Your task to perform on an android device: delete location history Image 0: 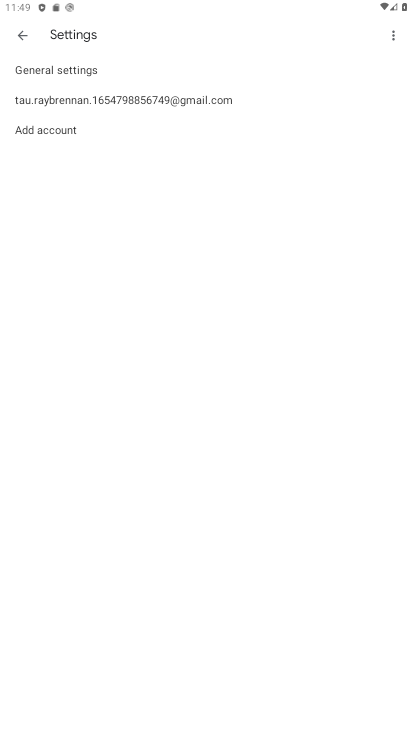
Step 0: press home button
Your task to perform on an android device: delete location history Image 1: 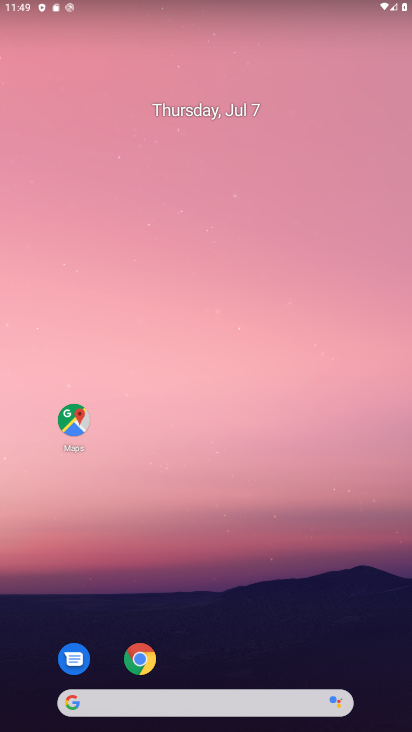
Step 1: drag from (228, 547) to (149, 145)
Your task to perform on an android device: delete location history Image 2: 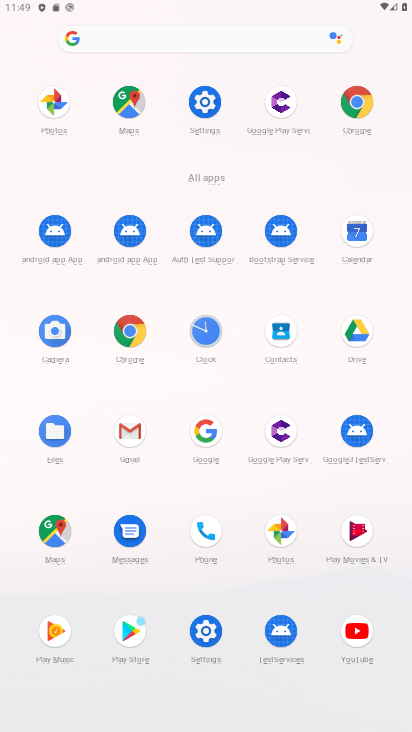
Step 2: click (121, 109)
Your task to perform on an android device: delete location history Image 3: 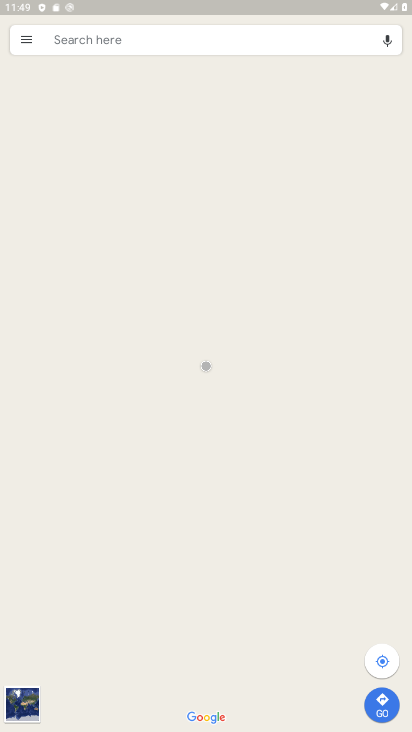
Step 3: click (24, 38)
Your task to perform on an android device: delete location history Image 4: 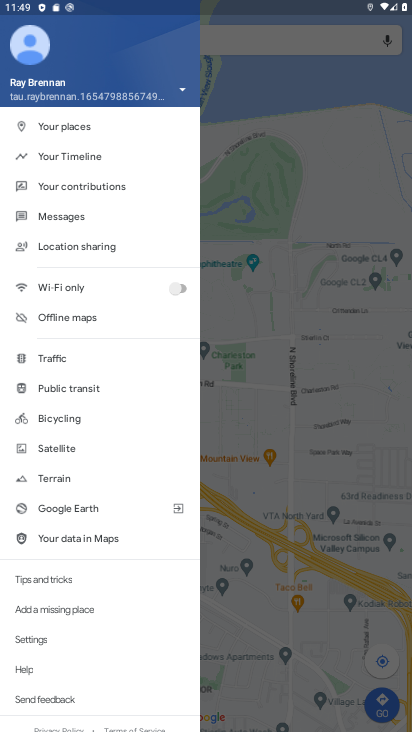
Step 4: click (68, 158)
Your task to perform on an android device: delete location history Image 5: 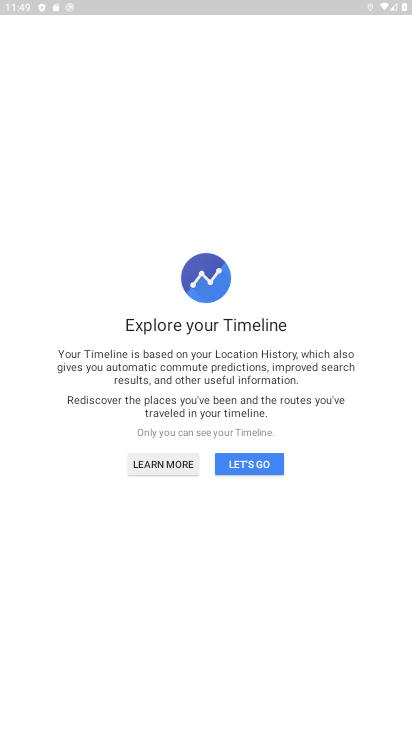
Step 5: click (254, 465)
Your task to perform on an android device: delete location history Image 6: 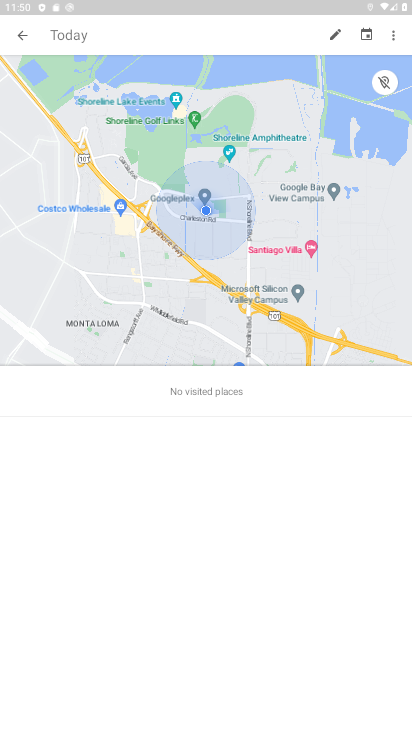
Step 6: click (394, 34)
Your task to perform on an android device: delete location history Image 7: 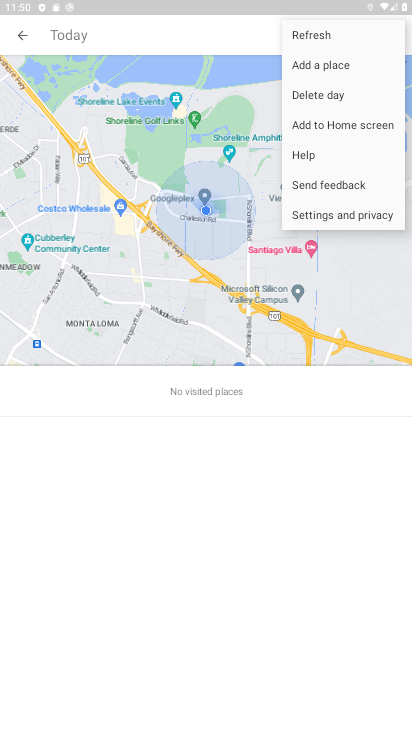
Step 7: click (312, 217)
Your task to perform on an android device: delete location history Image 8: 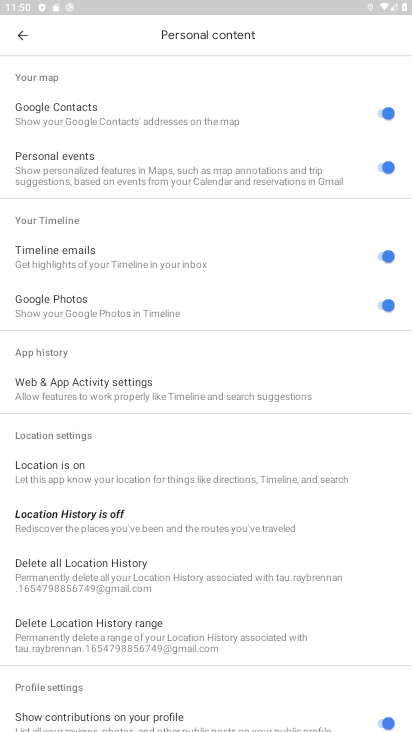
Step 8: click (146, 554)
Your task to perform on an android device: delete location history Image 9: 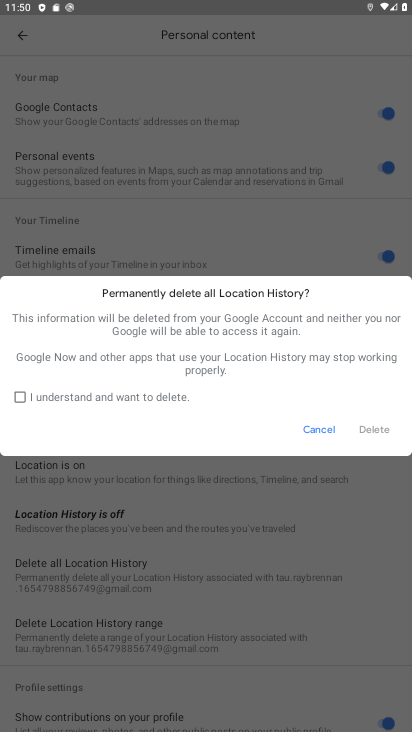
Step 9: click (95, 559)
Your task to perform on an android device: delete location history Image 10: 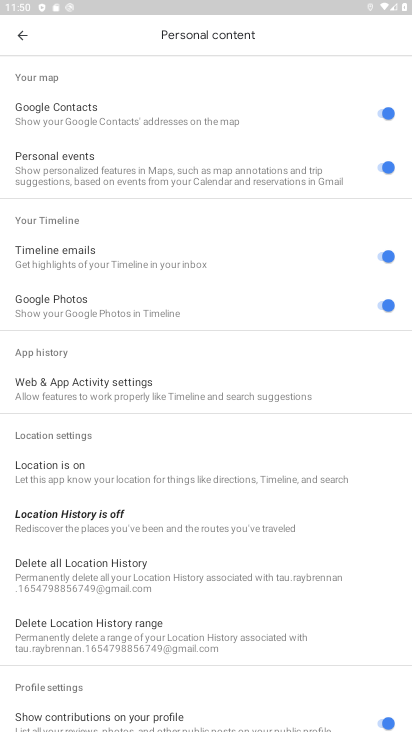
Step 10: click (102, 569)
Your task to perform on an android device: delete location history Image 11: 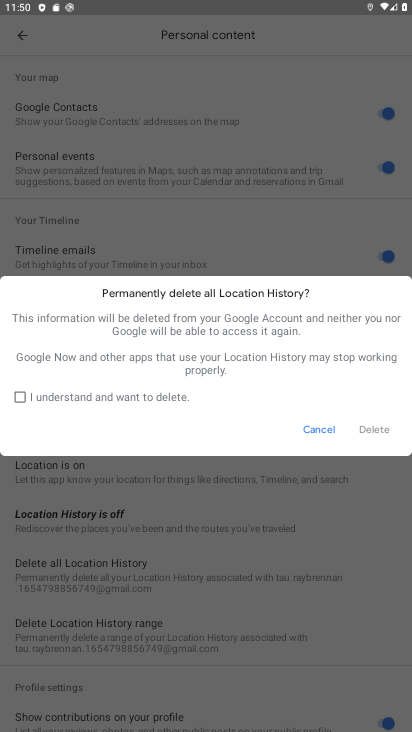
Step 11: click (14, 393)
Your task to perform on an android device: delete location history Image 12: 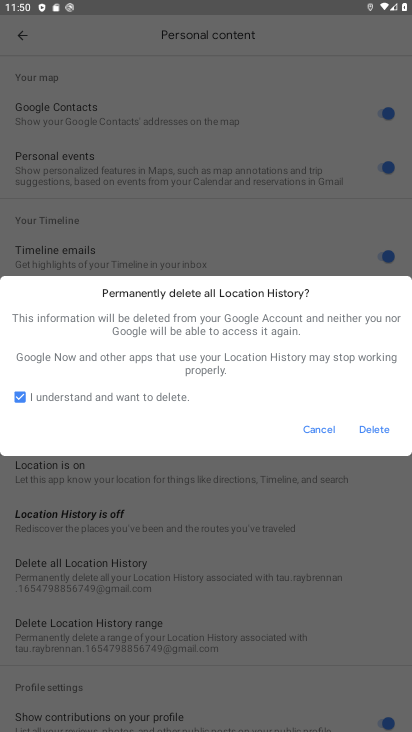
Step 12: click (366, 428)
Your task to perform on an android device: delete location history Image 13: 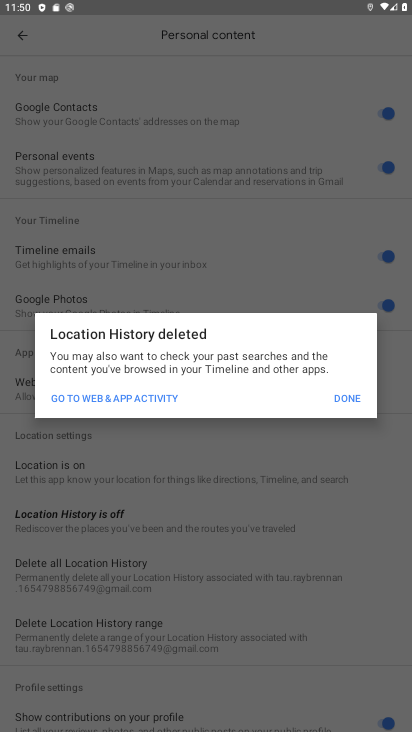
Step 13: click (350, 395)
Your task to perform on an android device: delete location history Image 14: 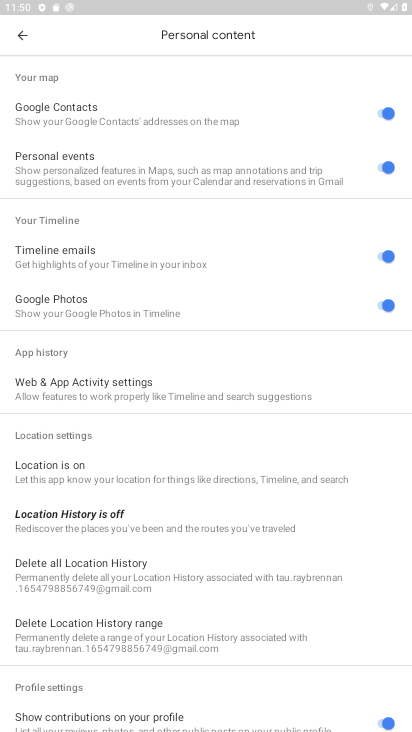
Step 14: task complete